Your task to perform on an android device: toggle improve location accuracy Image 0: 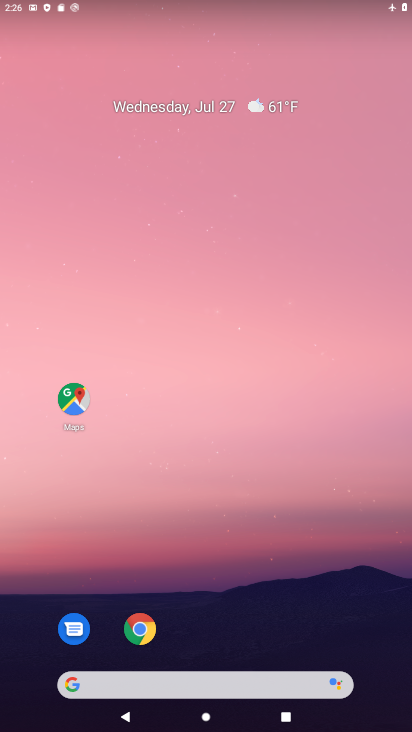
Step 0: drag from (245, 633) to (287, 191)
Your task to perform on an android device: toggle improve location accuracy Image 1: 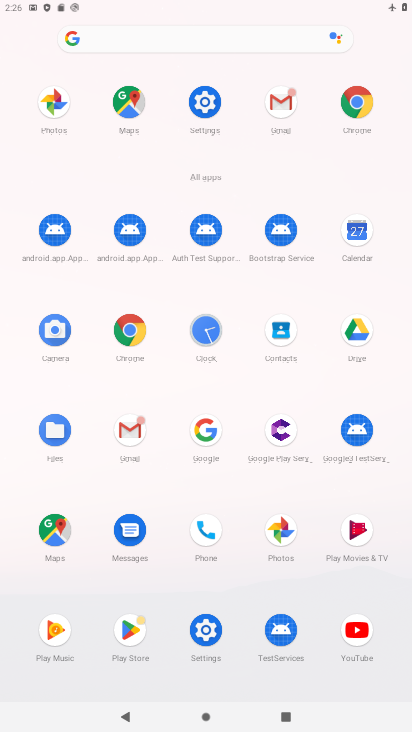
Step 1: click (214, 627)
Your task to perform on an android device: toggle improve location accuracy Image 2: 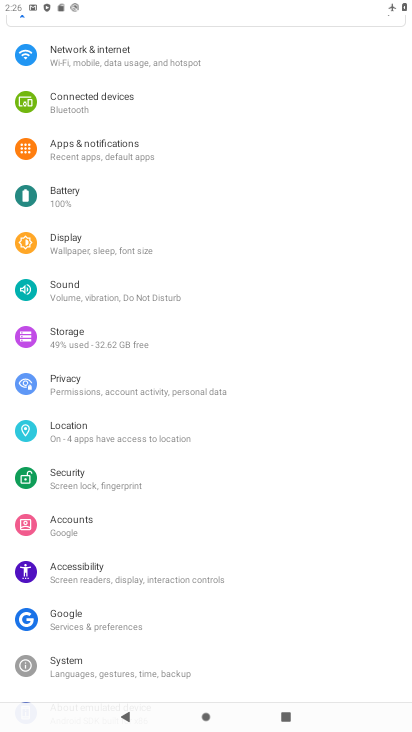
Step 2: click (84, 426)
Your task to perform on an android device: toggle improve location accuracy Image 3: 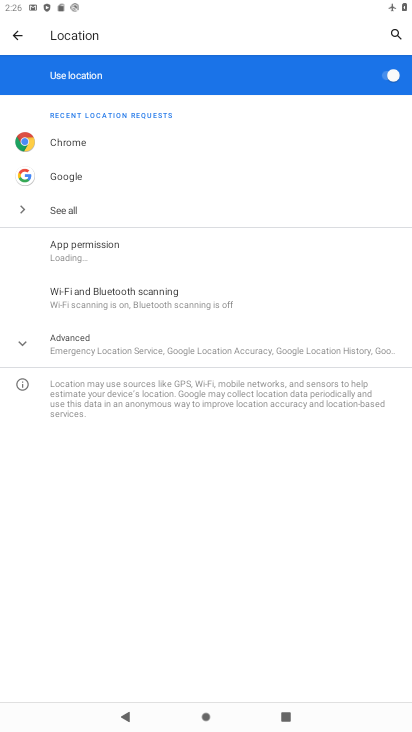
Step 3: click (102, 348)
Your task to perform on an android device: toggle improve location accuracy Image 4: 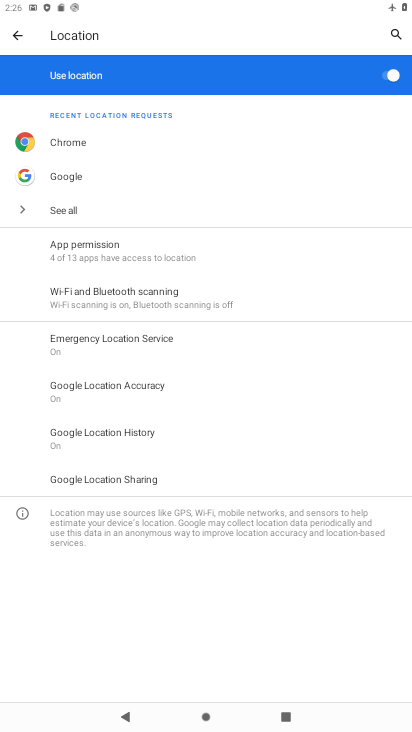
Step 4: click (152, 385)
Your task to perform on an android device: toggle improve location accuracy Image 5: 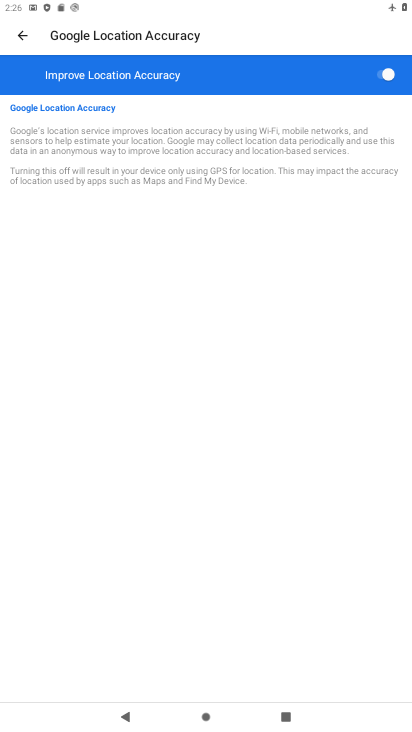
Step 5: click (278, 70)
Your task to perform on an android device: toggle improve location accuracy Image 6: 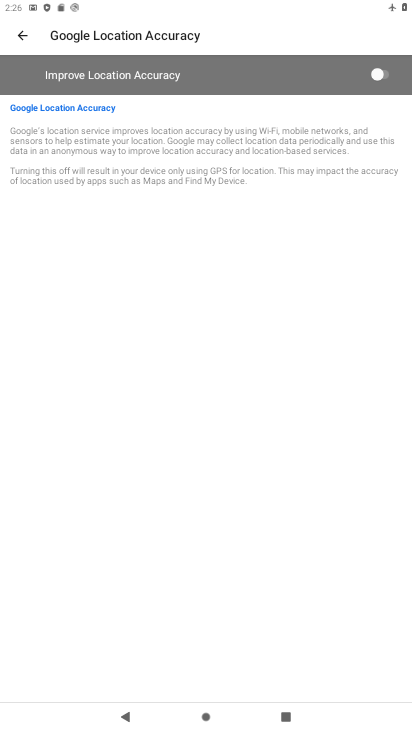
Step 6: task complete